Your task to perform on an android device: add a contact Image 0: 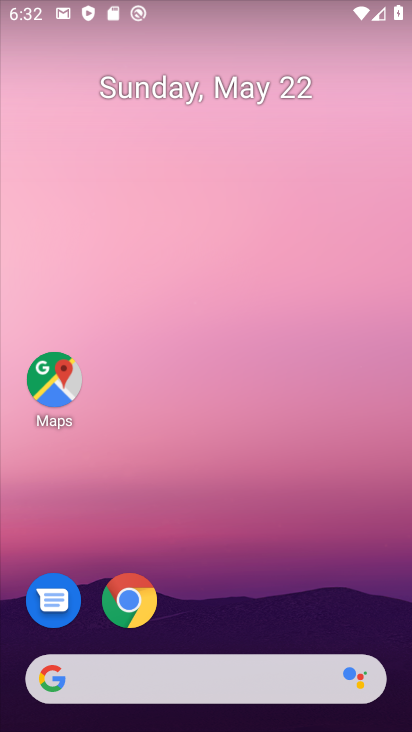
Step 0: drag from (365, 632) to (247, 152)
Your task to perform on an android device: add a contact Image 1: 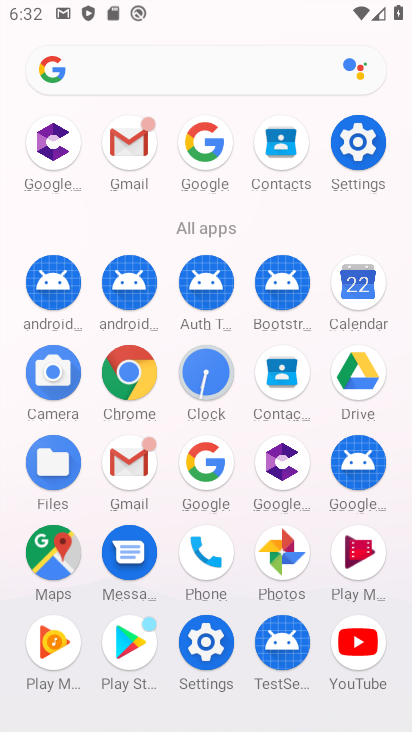
Step 1: click (293, 373)
Your task to perform on an android device: add a contact Image 2: 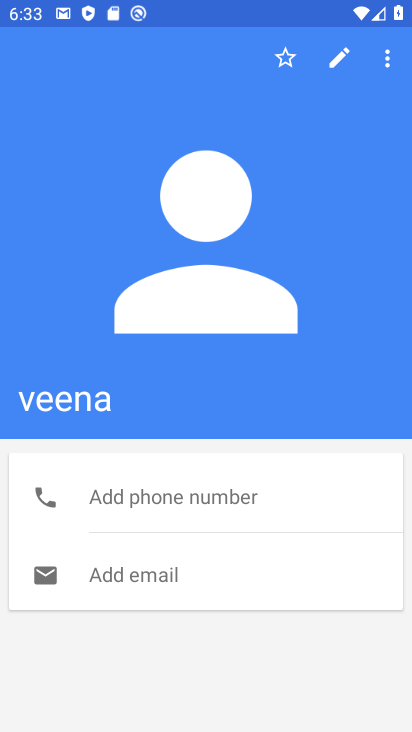
Step 2: press back button
Your task to perform on an android device: add a contact Image 3: 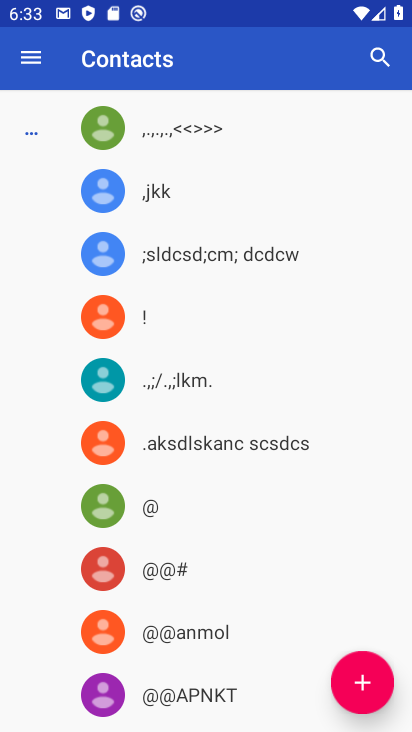
Step 3: click (359, 691)
Your task to perform on an android device: add a contact Image 4: 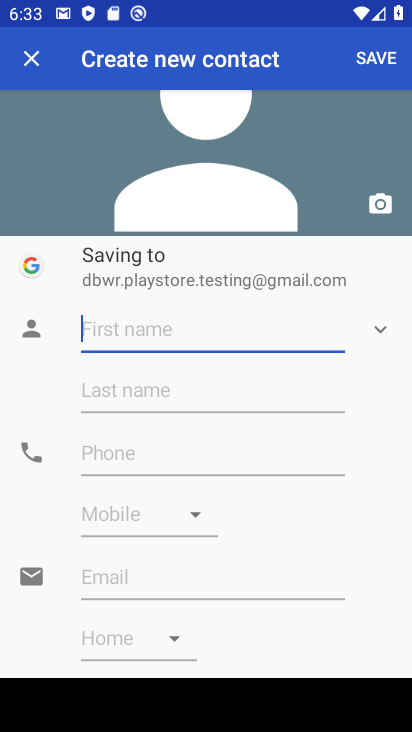
Step 4: type "meenakshi"
Your task to perform on an android device: add a contact Image 5: 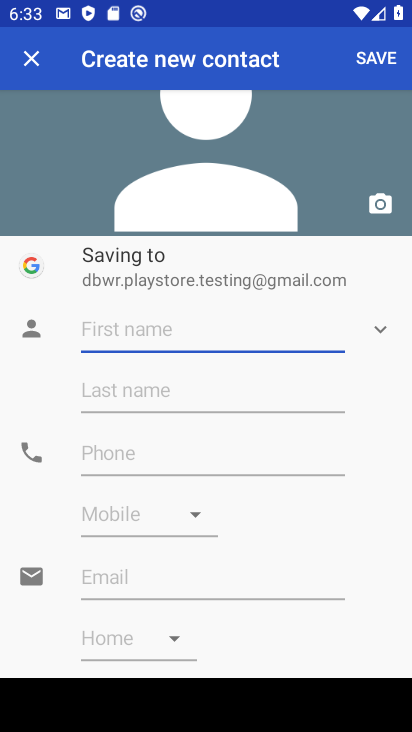
Step 5: click (360, 61)
Your task to perform on an android device: add a contact Image 6: 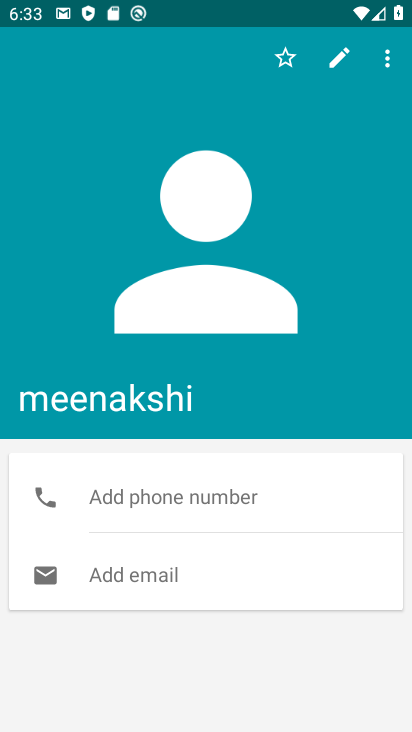
Step 6: task complete